Your task to perform on an android device: Open the web browser Image 0: 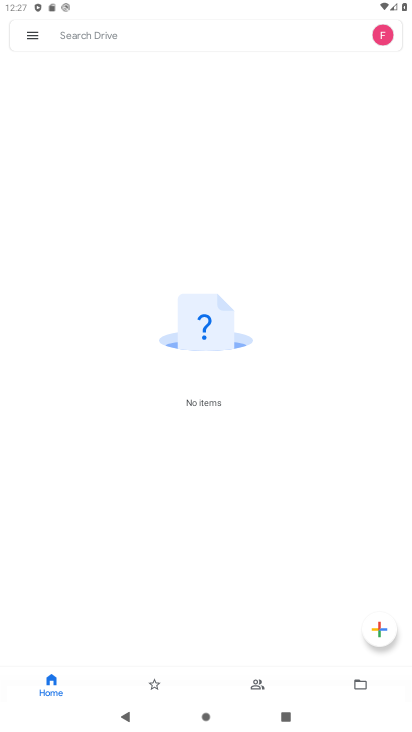
Step 0: press home button
Your task to perform on an android device: Open the web browser Image 1: 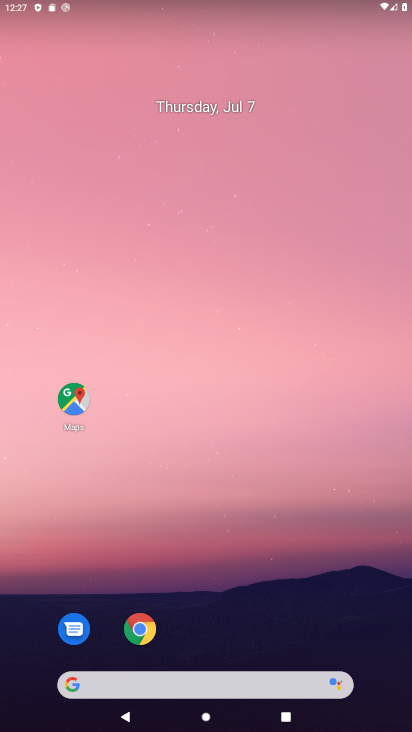
Step 1: click (141, 627)
Your task to perform on an android device: Open the web browser Image 2: 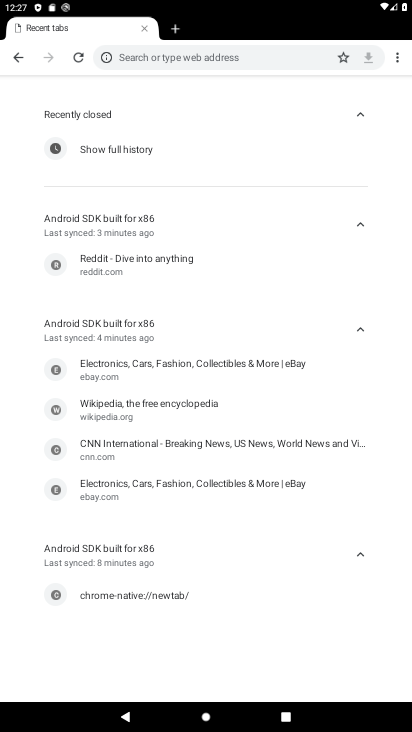
Step 2: task complete